Your task to perform on an android device: Open Google Image 0: 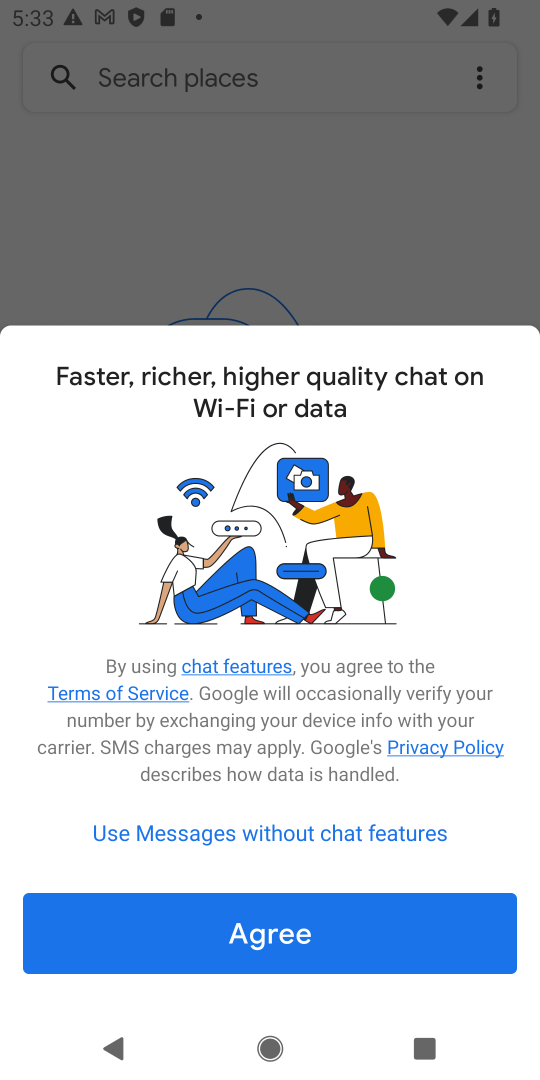
Step 0: press home button
Your task to perform on an android device: Open Google Image 1: 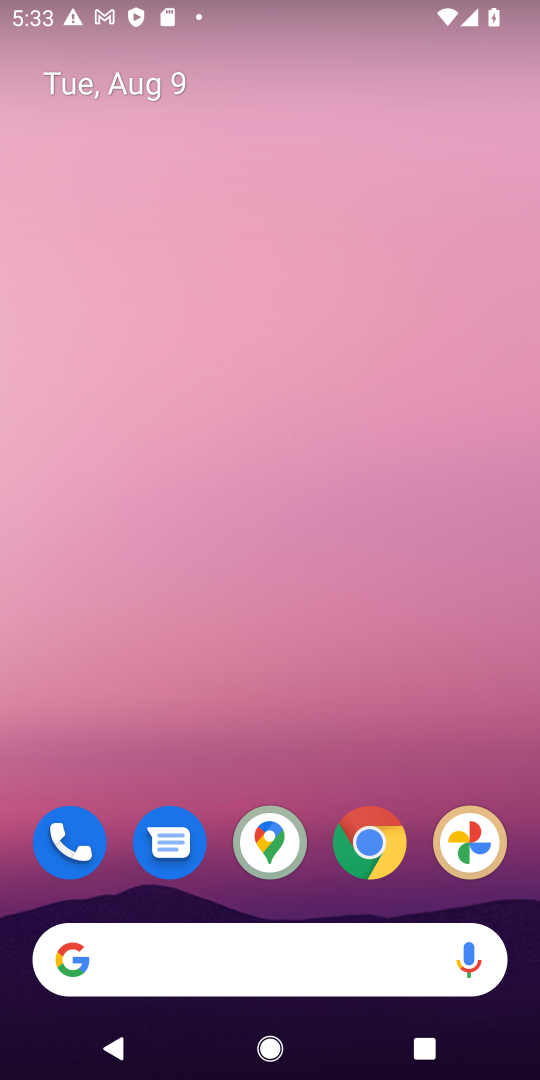
Step 1: drag from (295, 845) to (303, 158)
Your task to perform on an android device: Open Google Image 2: 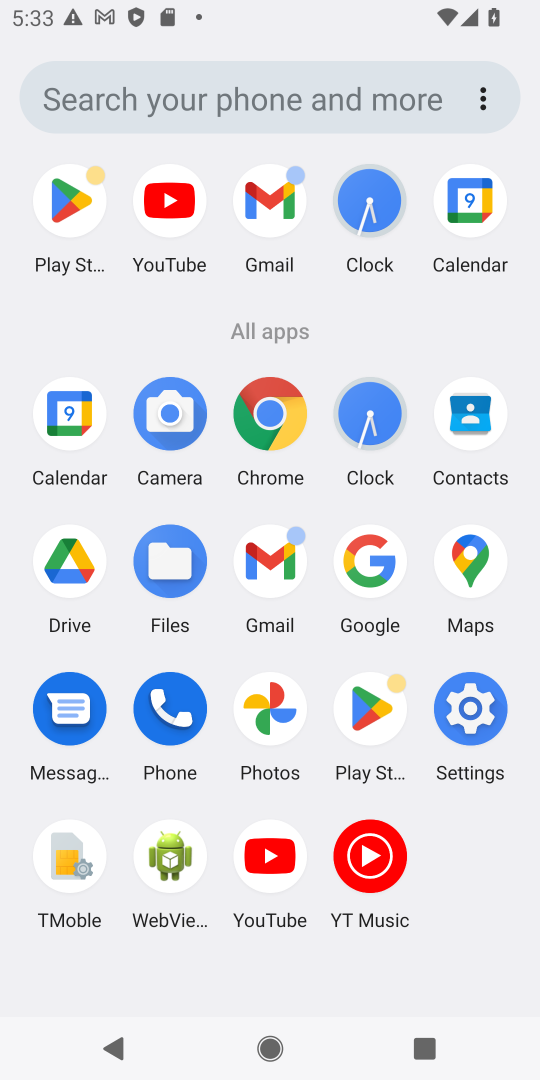
Step 2: click (379, 566)
Your task to perform on an android device: Open Google Image 3: 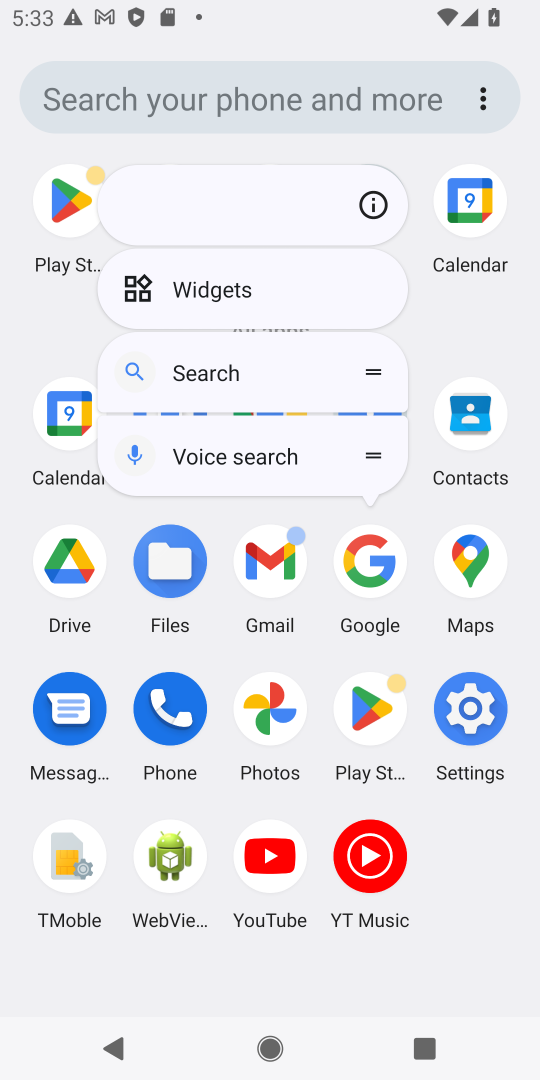
Step 3: click (379, 563)
Your task to perform on an android device: Open Google Image 4: 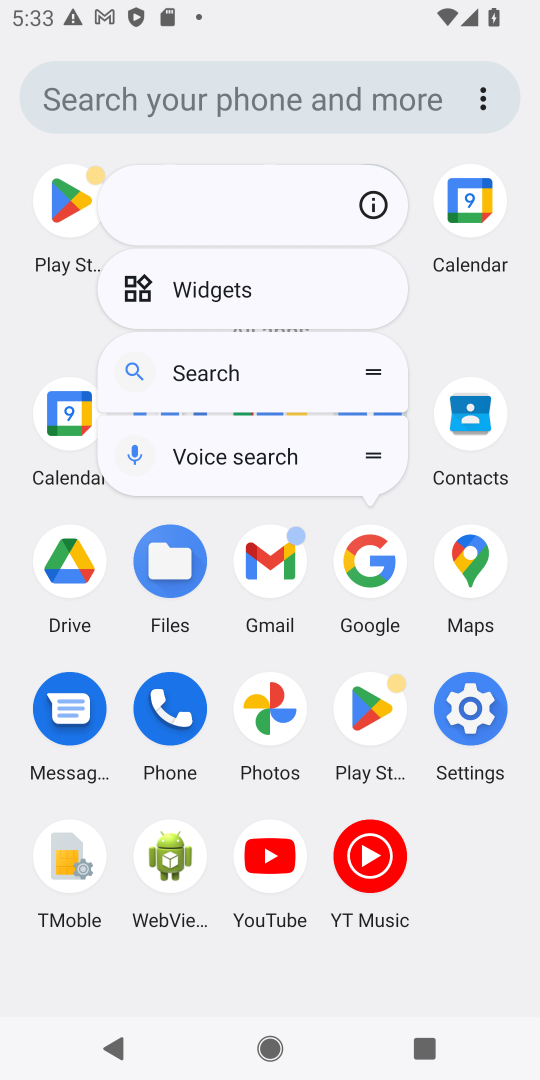
Step 4: click (379, 563)
Your task to perform on an android device: Open Google Image 5: 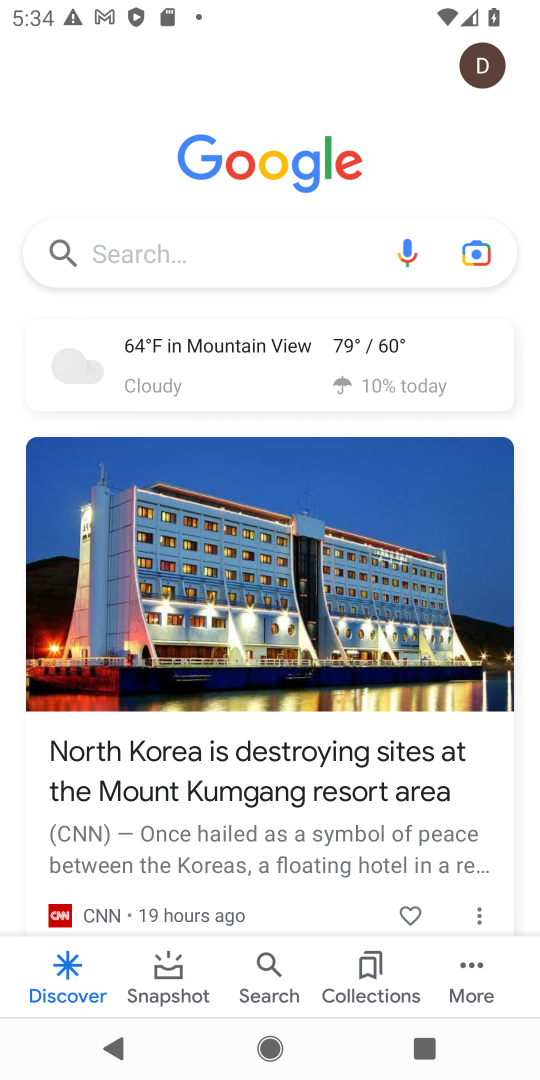
Step 5: task complete